Your task to perform on an android device: Go to settings Image 0: 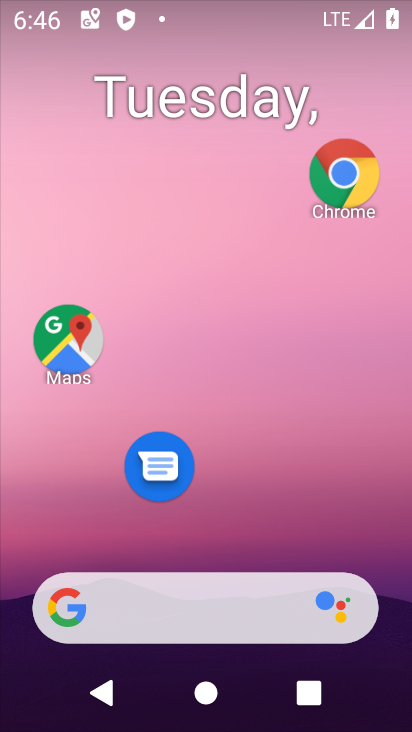
Step 0: drag from (354, 523) to (319, 225)
Your task to perform on an android device: Go to settings Image 1: 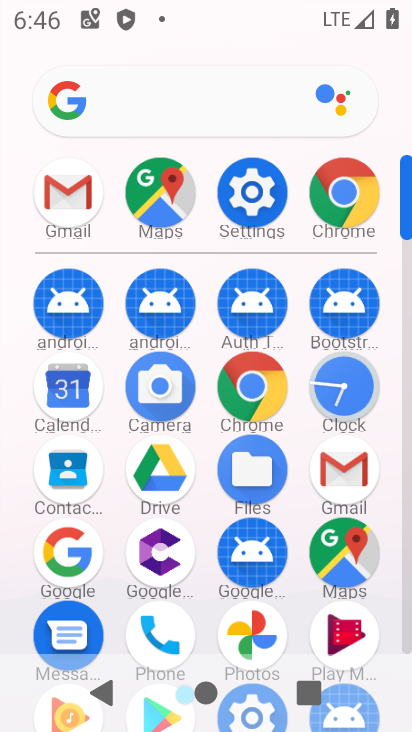
Step 1: drag from (200, 528) to (225, 325)
Your task to perform on an android device: Go to settings Image 2: 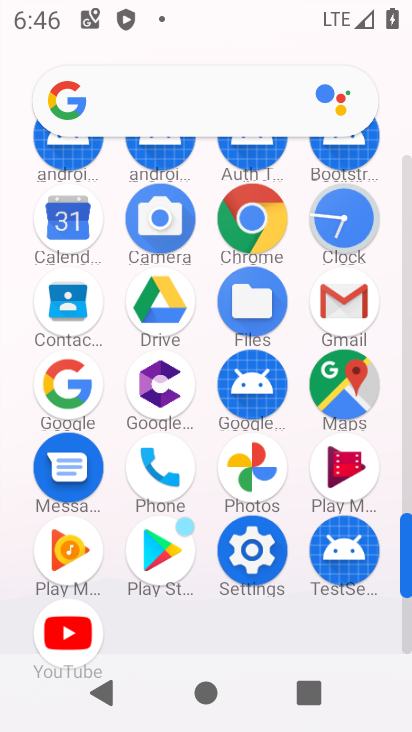
Step 2: click (273, 547)
Your task to perform on an android device: Go to settings Image 3: 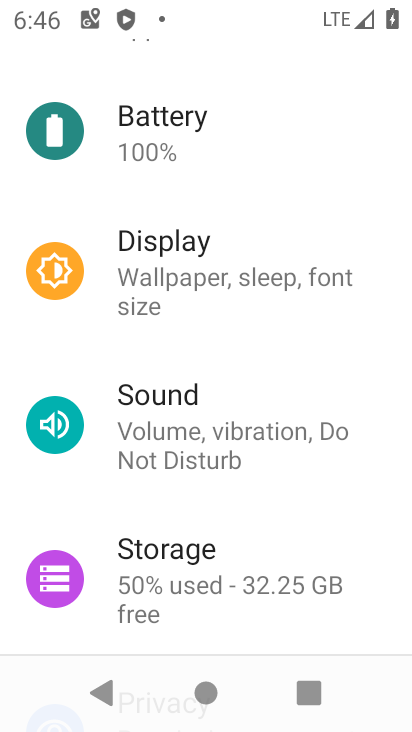
Step 3: task complete